Your task to perform on an android device: turn off priority inbox in the gmail app Image 0: 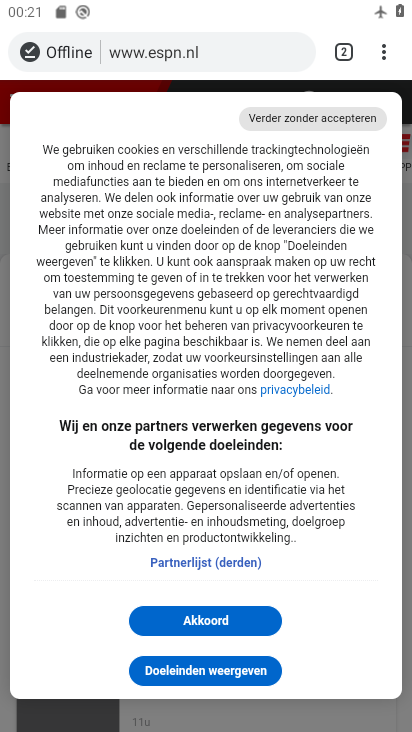
Step 0: press home button
Your task to perform on an android device: turn off priority inbox in the gmail app Image 1: 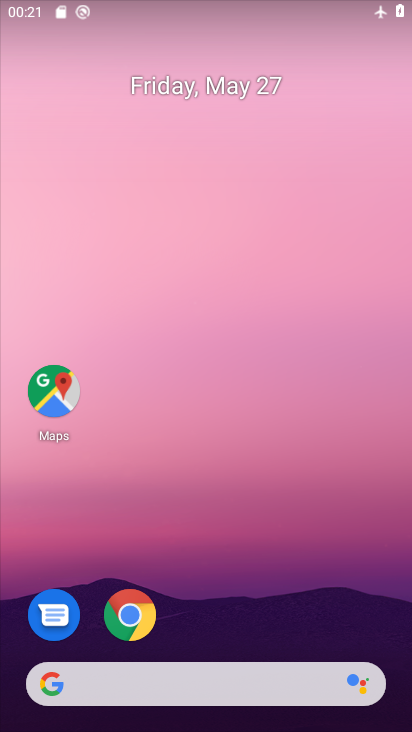
Step 1: drag from (356, 624) to (382, 211)
Your task to perform on an android device: turn off priority inbox in the gmail app Image 2: 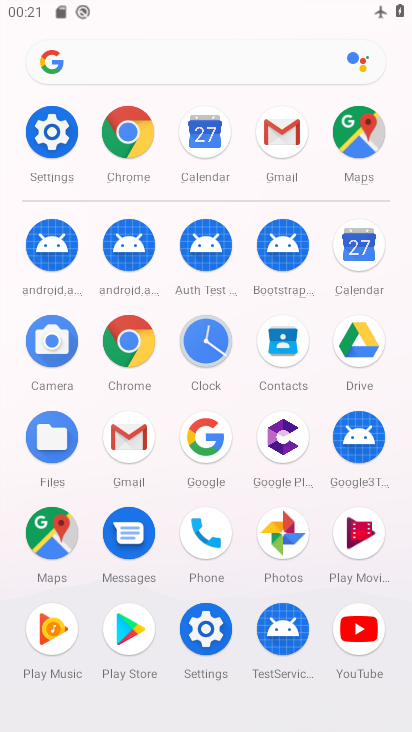
Step 2: click (137, 455)
Your task to perform on an android device: turn off priority inbox in the gmail app Image 3: 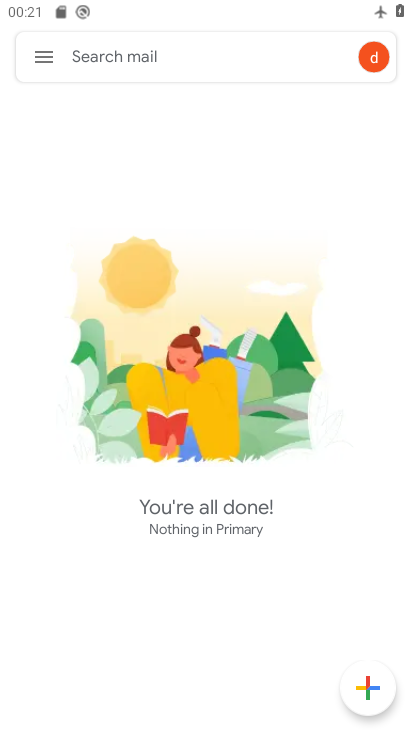
Step 3: click (41, 56)
Your task to perform on an android device: turn off priority inbox in the gmail app Image 4: 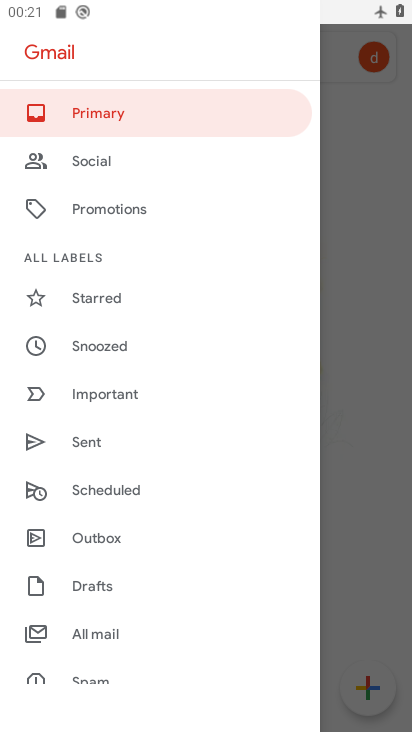
Step 4: drag from (236, 457) to (260, 360)
Your task to perform on an android device: turn off priority inbox in the gmail app Image 5: 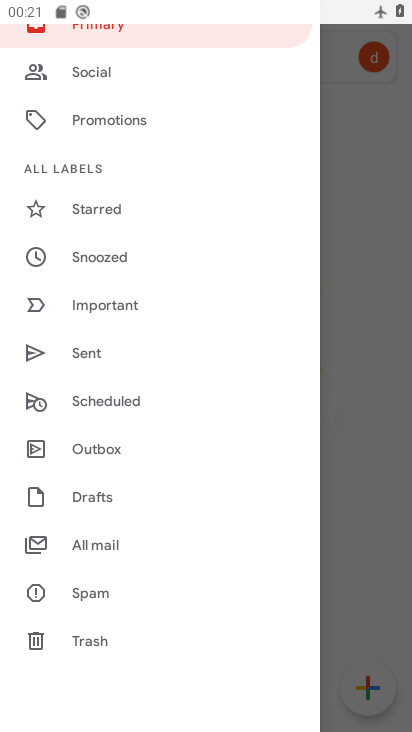
Step 5: drag from (253, 546) to (271, 417)
Your task to perform on an android device: turn off priority inbox in the gmail app Image 6: 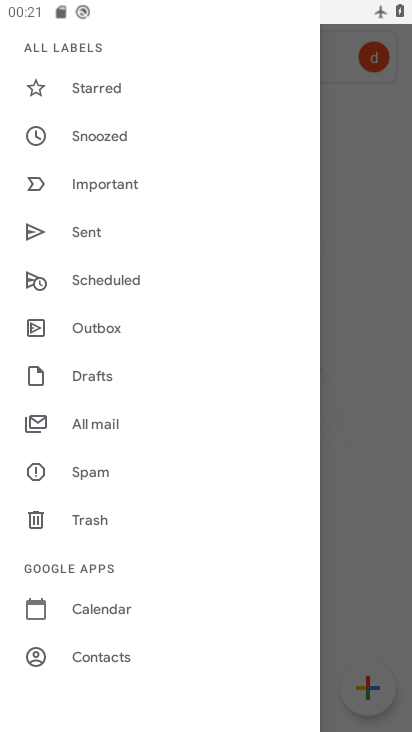
Step 6: drag from (231, 558) to (225, 443)
Your task to perform on an android device: turn off priority inbox in the gmail app Image 7: 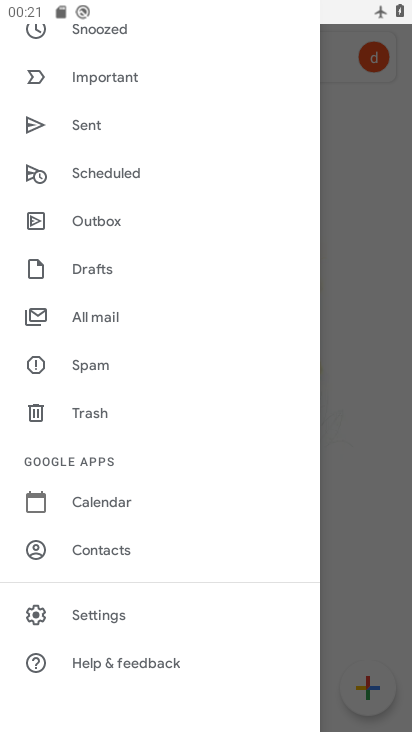
Step 7: drag from (233, 595) to (248, 449)
Your task to perform on an android device: turn off priority inbox in the gmail app Image 8: 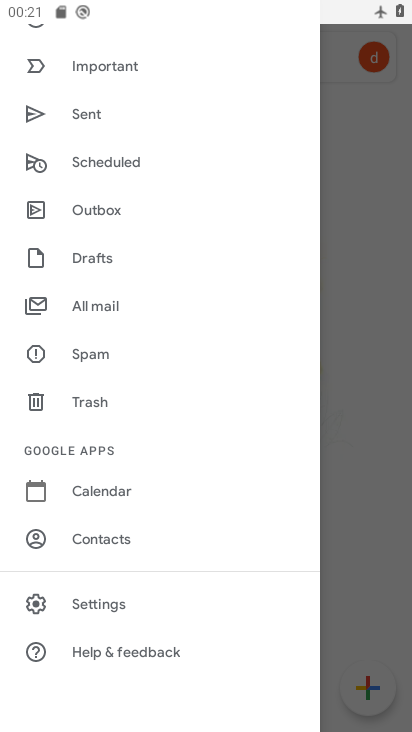
Step 8: click (132, 602)
Your task to perform on an android device: turn off priority inbox in the gmail app Image 9: 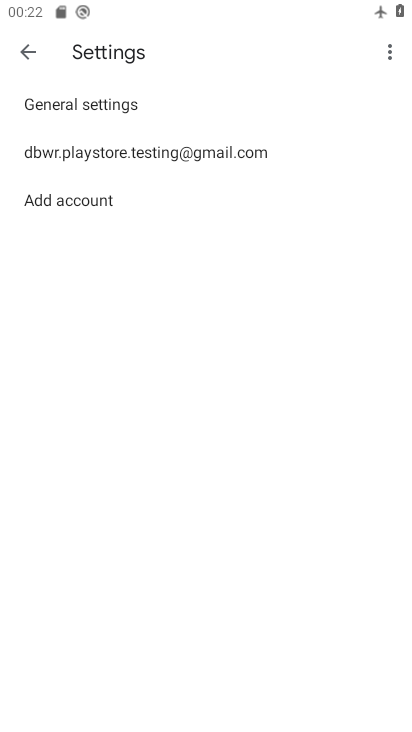
Step 9: click (198, 162)
Your task to perform on an android device: turn off priority inbox in the gmail app Image 10: 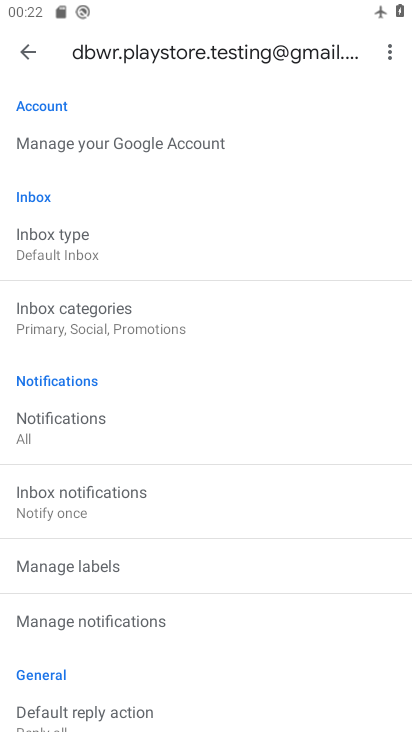
Step 10: task complete